Your task to perform on an android device: Go to privacy settings Image 0: 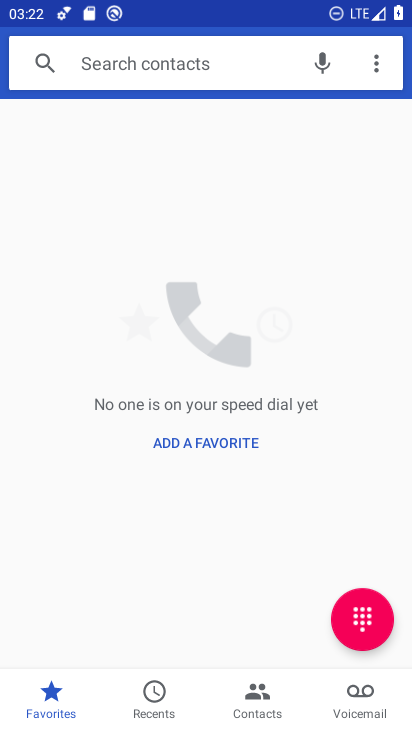
Step 0: press home button
Your task to perform on an android device: Go to privacy settings Image 1: 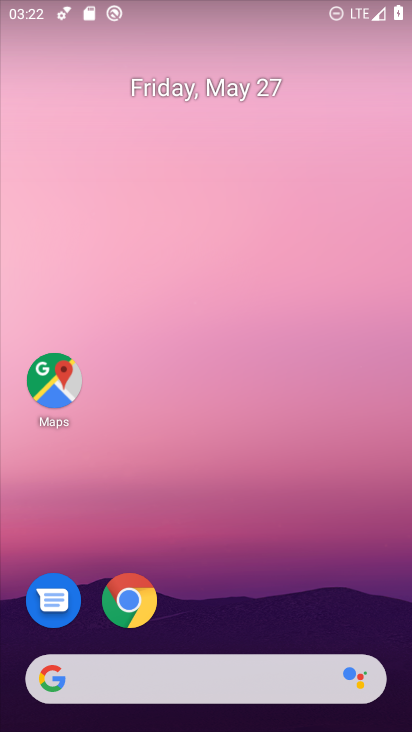
Step 1: drag from (223, 727) to (223, 67)
Your task to perform on an android device: Go to privacy settings Image 2: 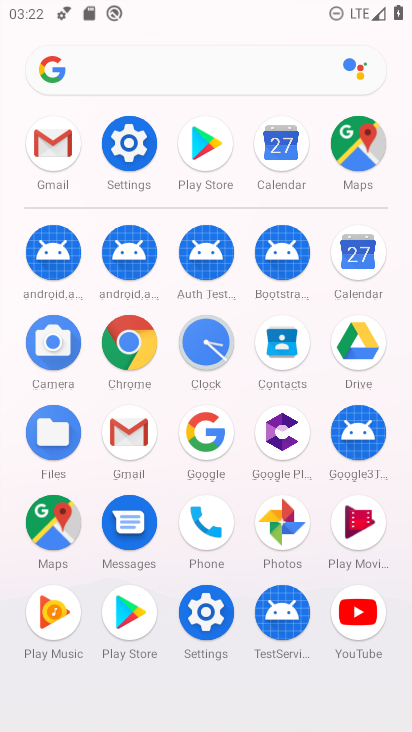
Step 2: click (124, 146)
Your task to perform on an android device: Go to privacy settings Image 3: 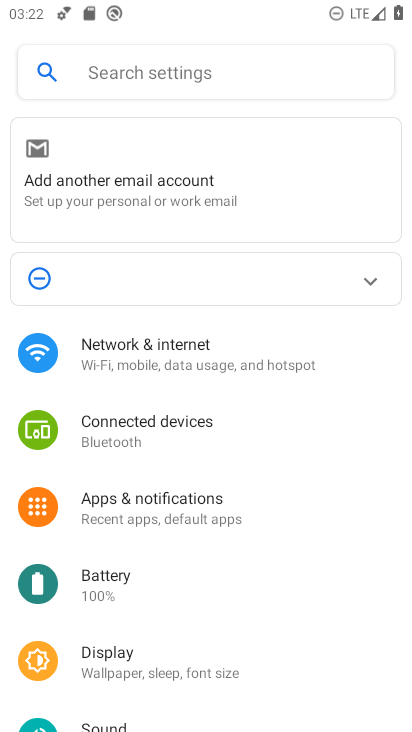
Step 3: drag from (196, 668) to (184, 239)
Your task to perform on an android device: Go to privacy settings Image 4: 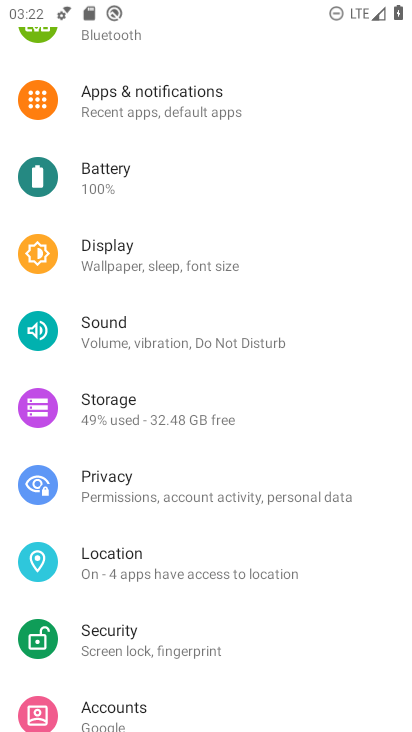
Step 4: click (106, 488)
Your task to perform on an android device: Go to privacy settings Image 5: 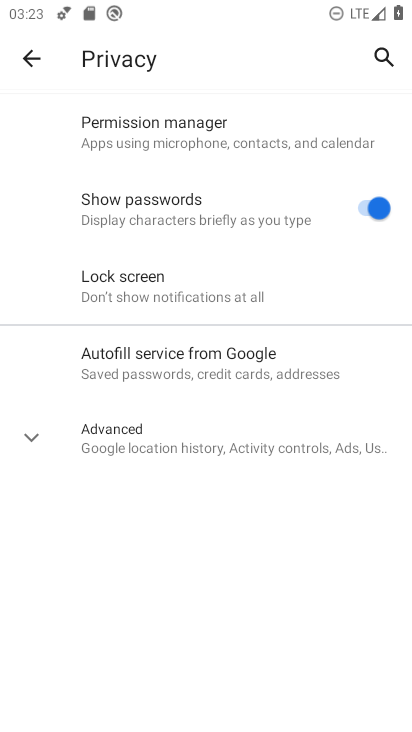
Step 5: task complete